Your task to perform on an android device: turn off priority inbox in the gmail app Image 0: 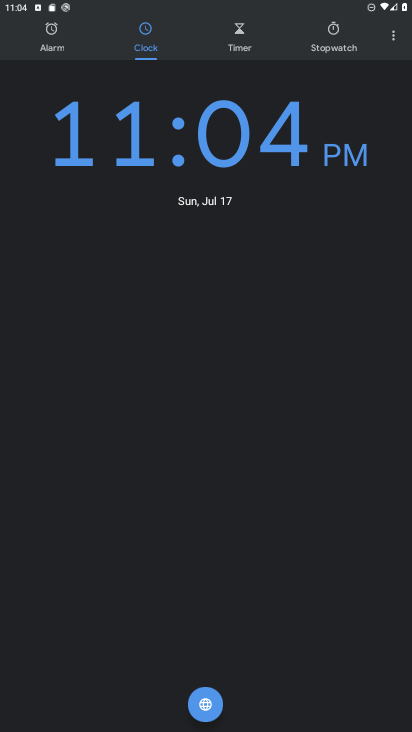
Step 0: press home button
Your task to perform on an android device: turn off priority inbox in the gmail app Image 1: 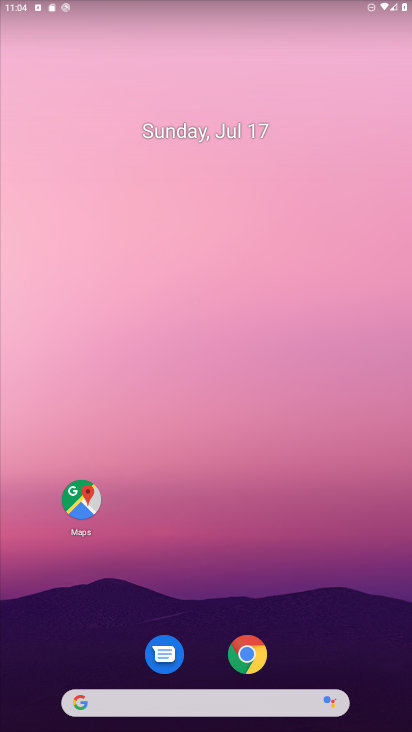
Step 1: drag from (205, 569) to (207, 80)
Your task to perform on an android device: turn off priority inbox in the gmail app Image 2: 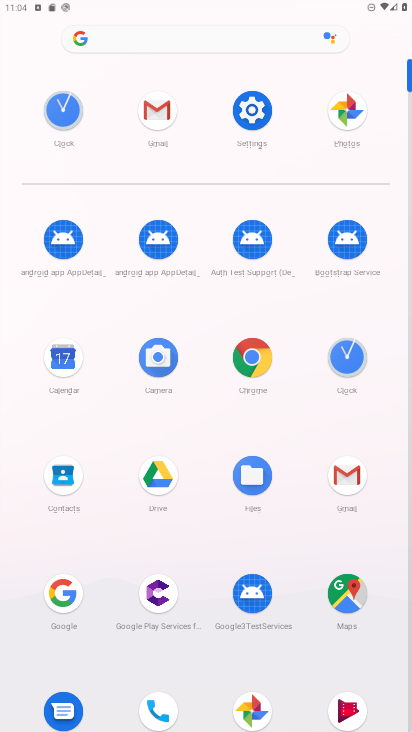
Step 2: click (164, 125)
Your task to perform on an android device: turn off priority inbox in the gmail app Image 3: 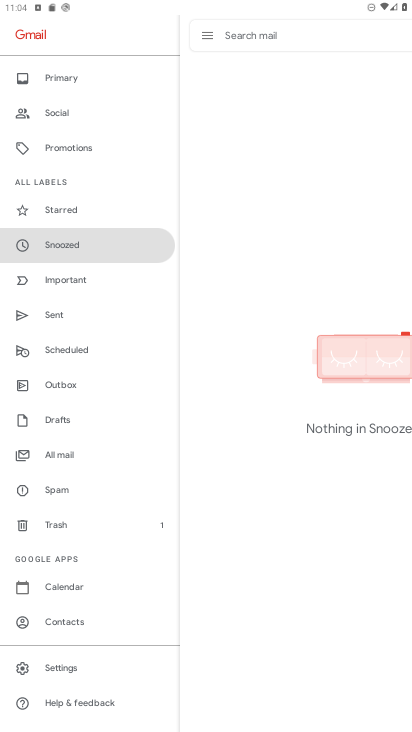
Step 3: click (80, 666)
Your task to perform on an android device: turn off priority inbox in the gmail app Image 4: 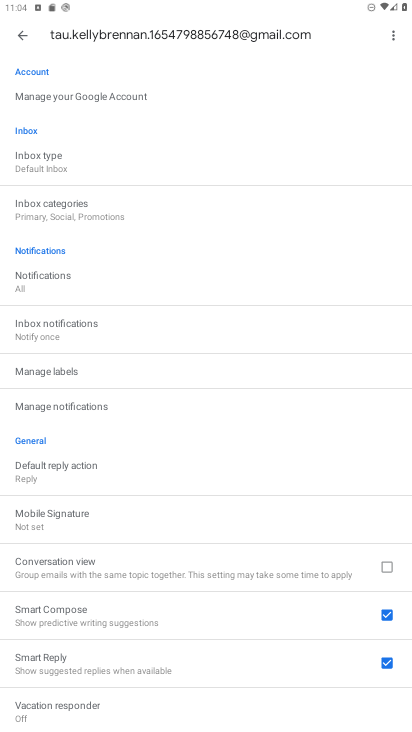
Step 4: click (81, 169)
Your task to perform on an android device: turn off priority inbox in the gmail app Image 5: 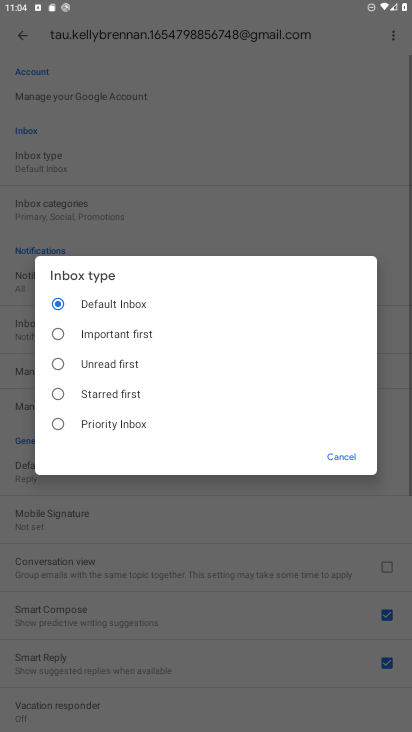
Step 5: task complete